Your task to perform on an android device: turn on improve location accuracy Image 0: 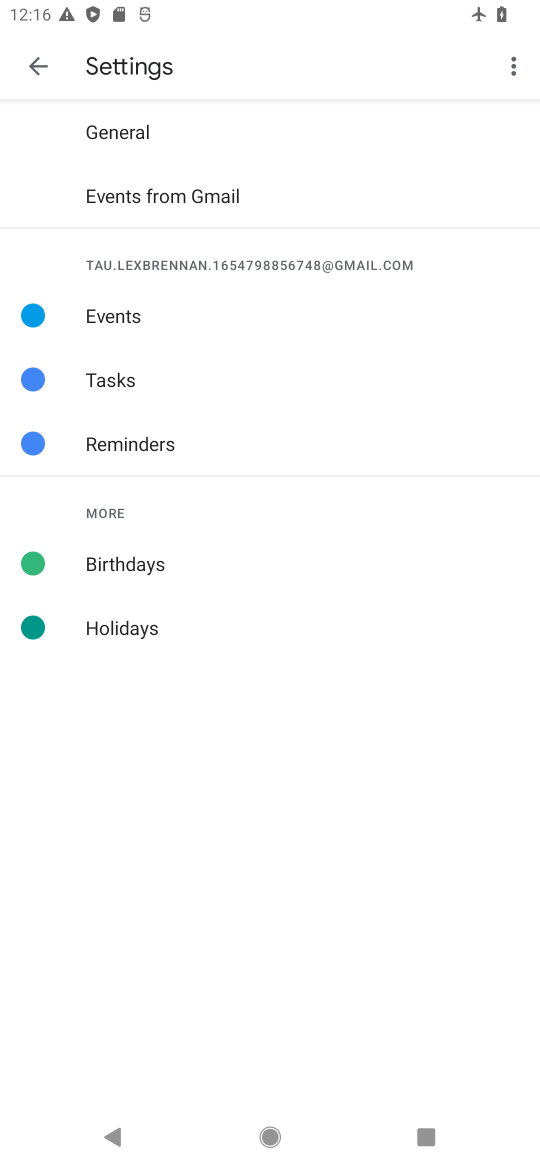
Step 0: press home button
Your task to perform on an android device: turn on improve location accuracy Image 1: 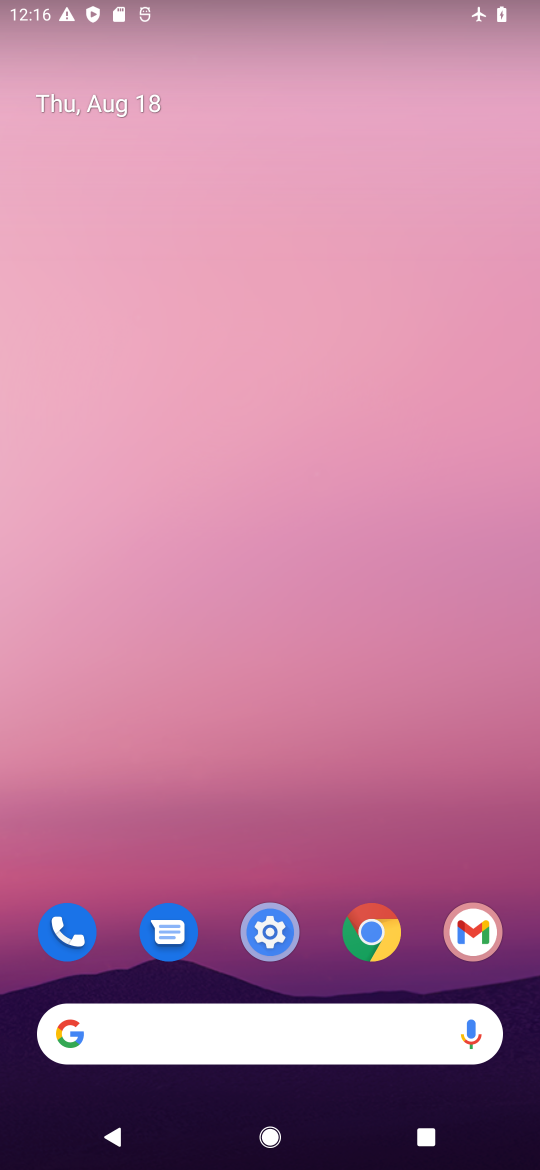
Step 1: click (265, 925)
Your task to perform on an android device: turn on improve location accuracy Image 2: 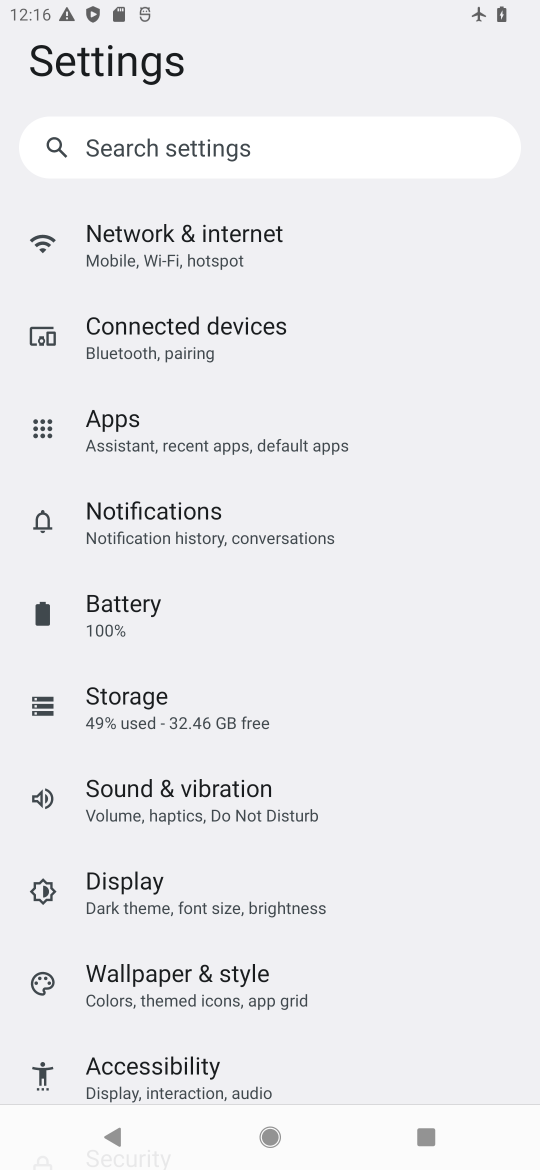
Step 2: drag from (343, 923) to (338, 554)
Your task to perform on an android device: turn on improve location accuracy Image 3: 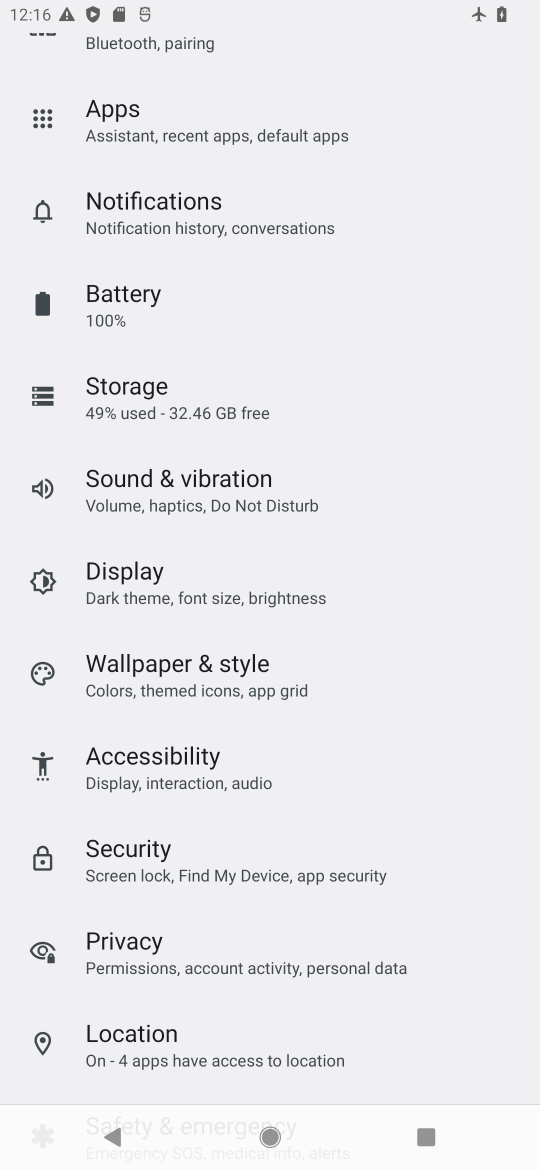
Step 3: click (136, 1023)
Your task to perform on an android device: turn on improve location accuracy Image 4: 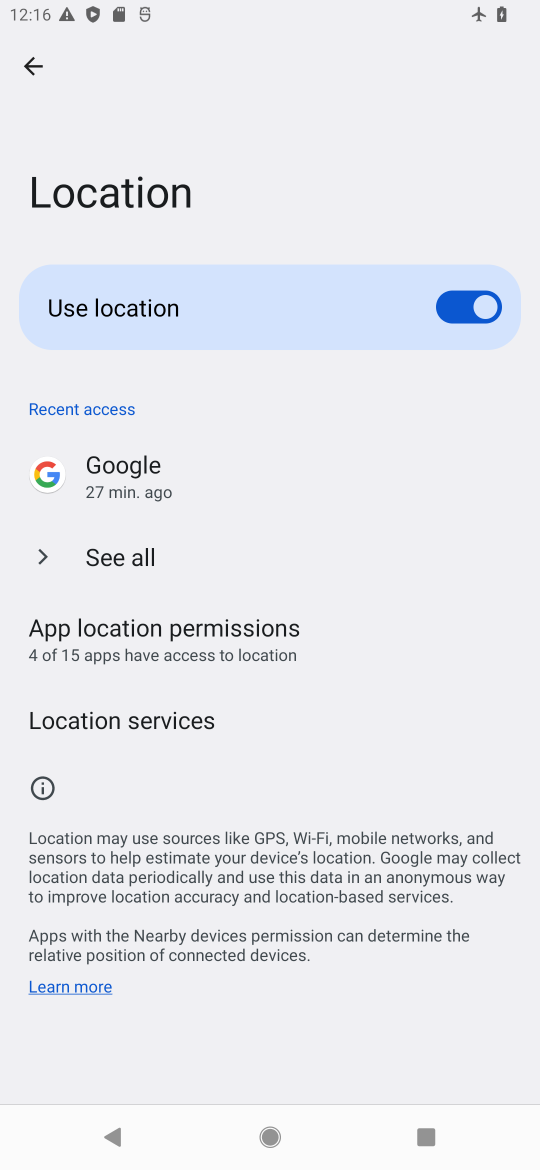
Step 4: click (89, 729)
Your task to perform on an android device: turn on improve location accuracy Image 5: 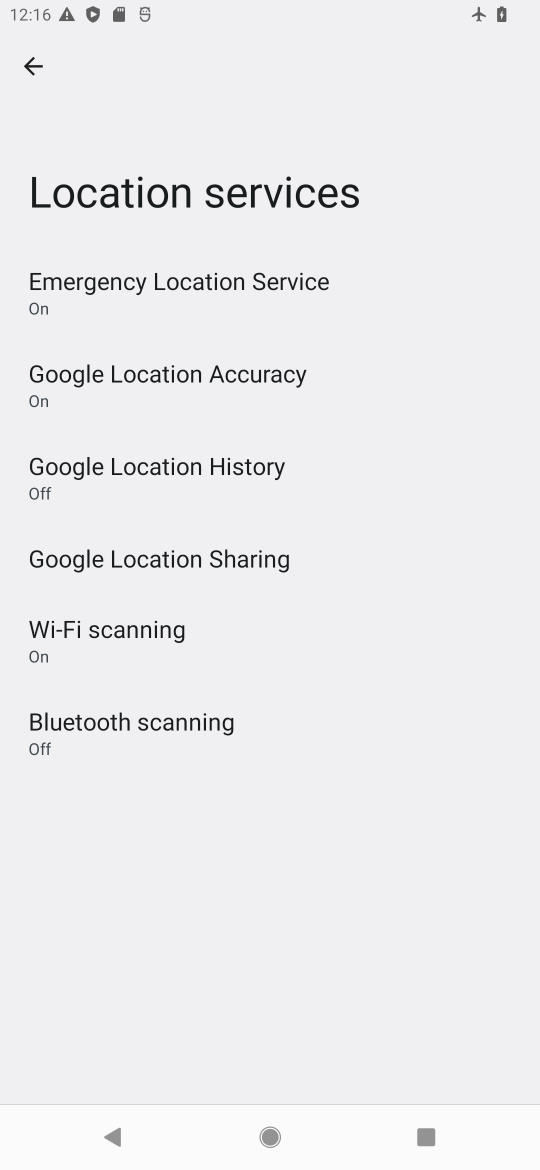
Step 5: click (173, 366)
Your task to perform on an android device: turn on improve location accuracy Image 6: 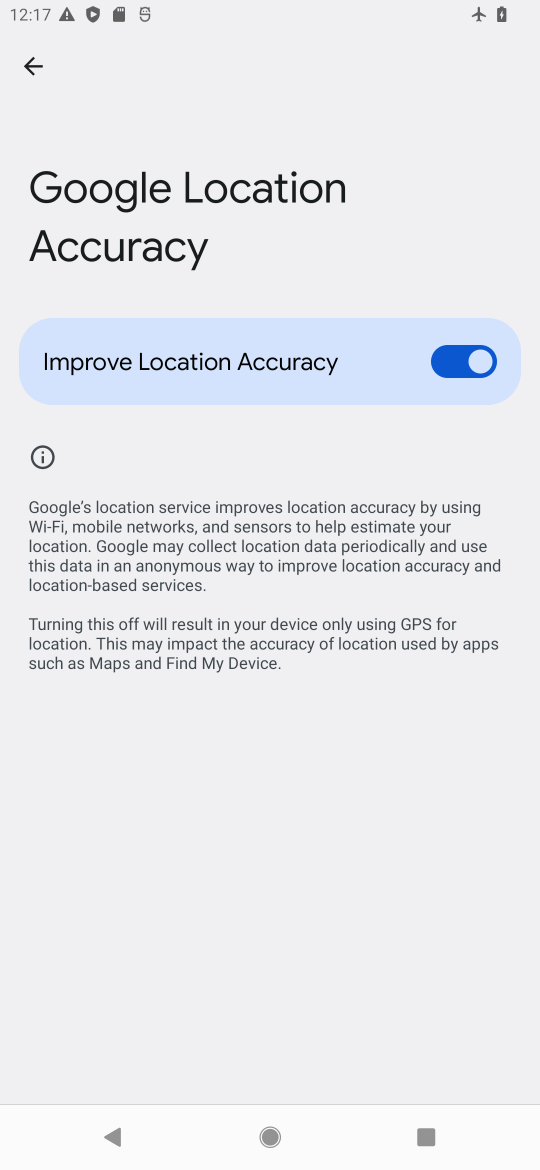
Step 6: task complete